Your task to perform on an android device: Search for sushi restaurants on Maps Image 0: 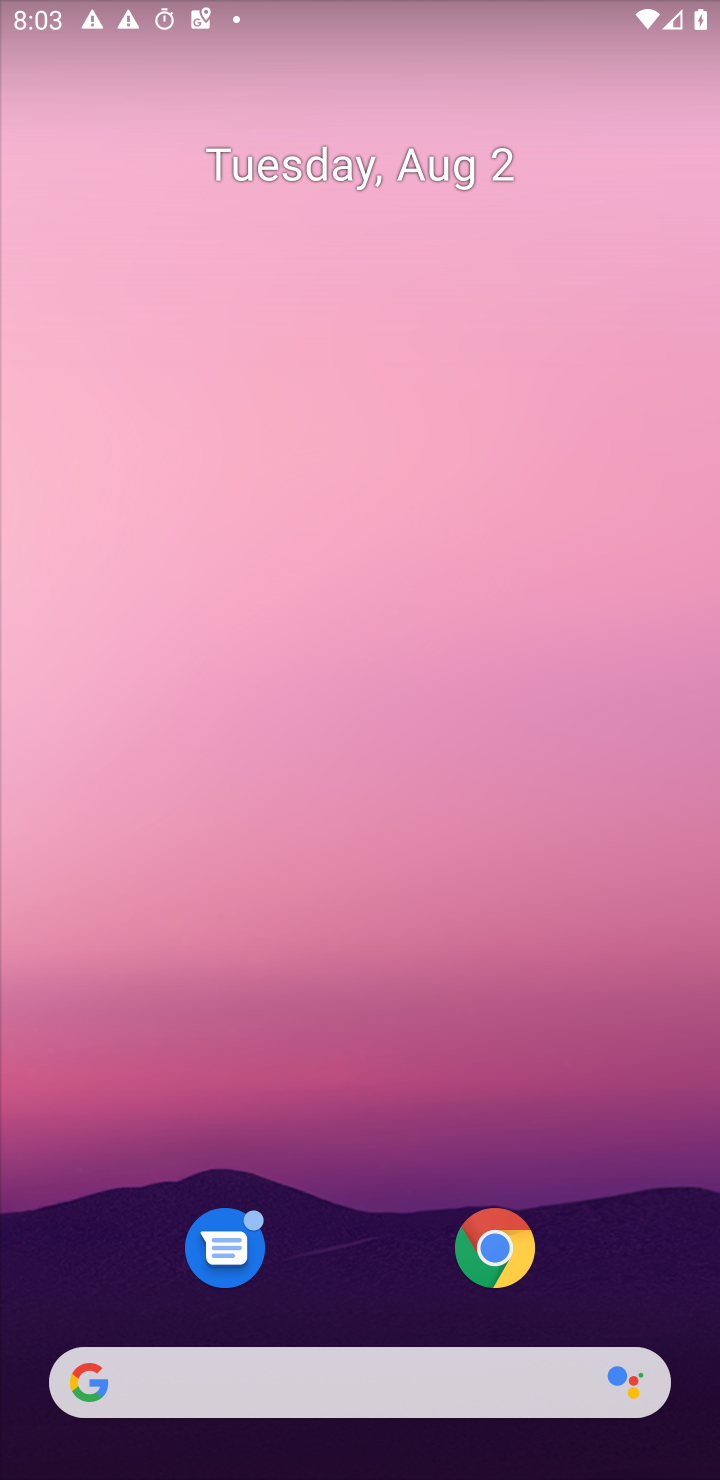
Step 0: drag from (317, 1103) to (273, 3)
Your task to perform on an android device: Search for sushi restaurants on Maps Image 1: 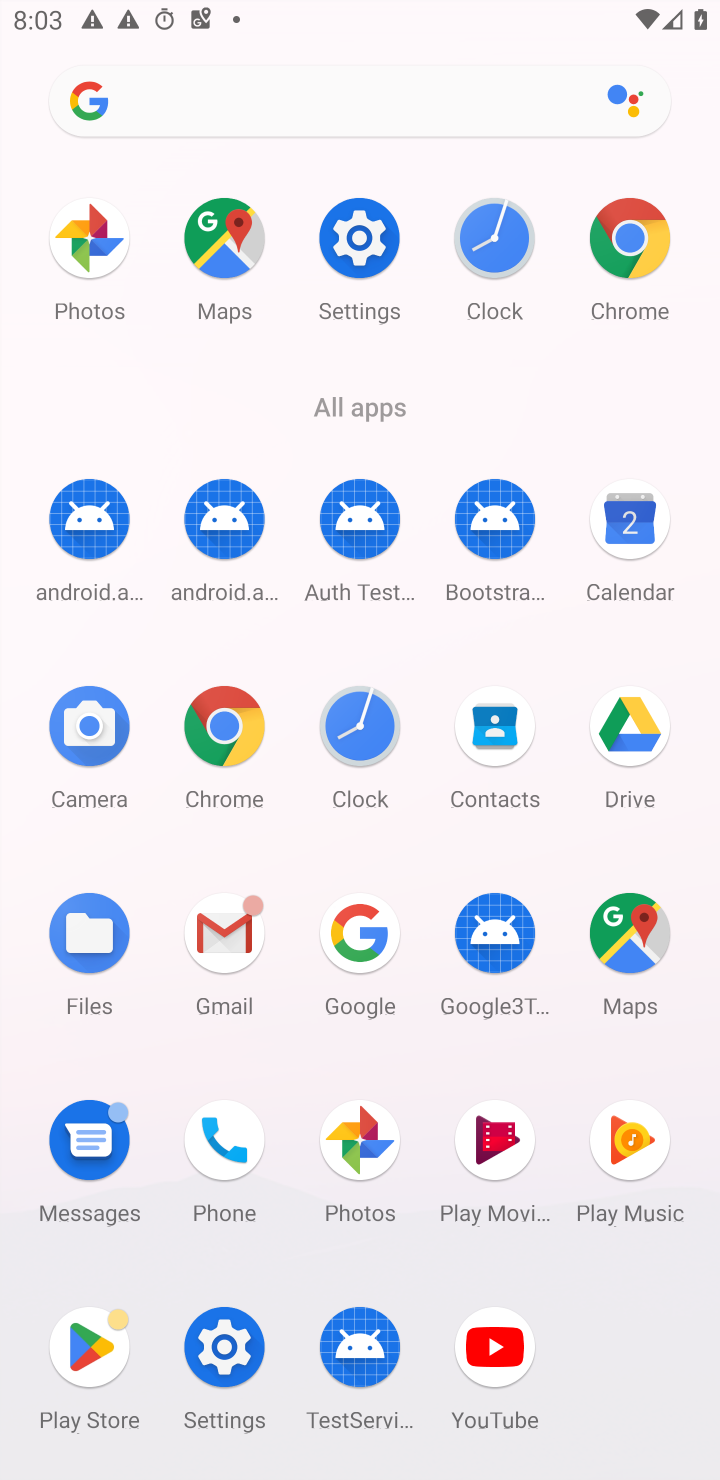
Step 1: click (620, 918)
Your task to perform on an android device: Search for sushi restaurants on Maps Image 2: 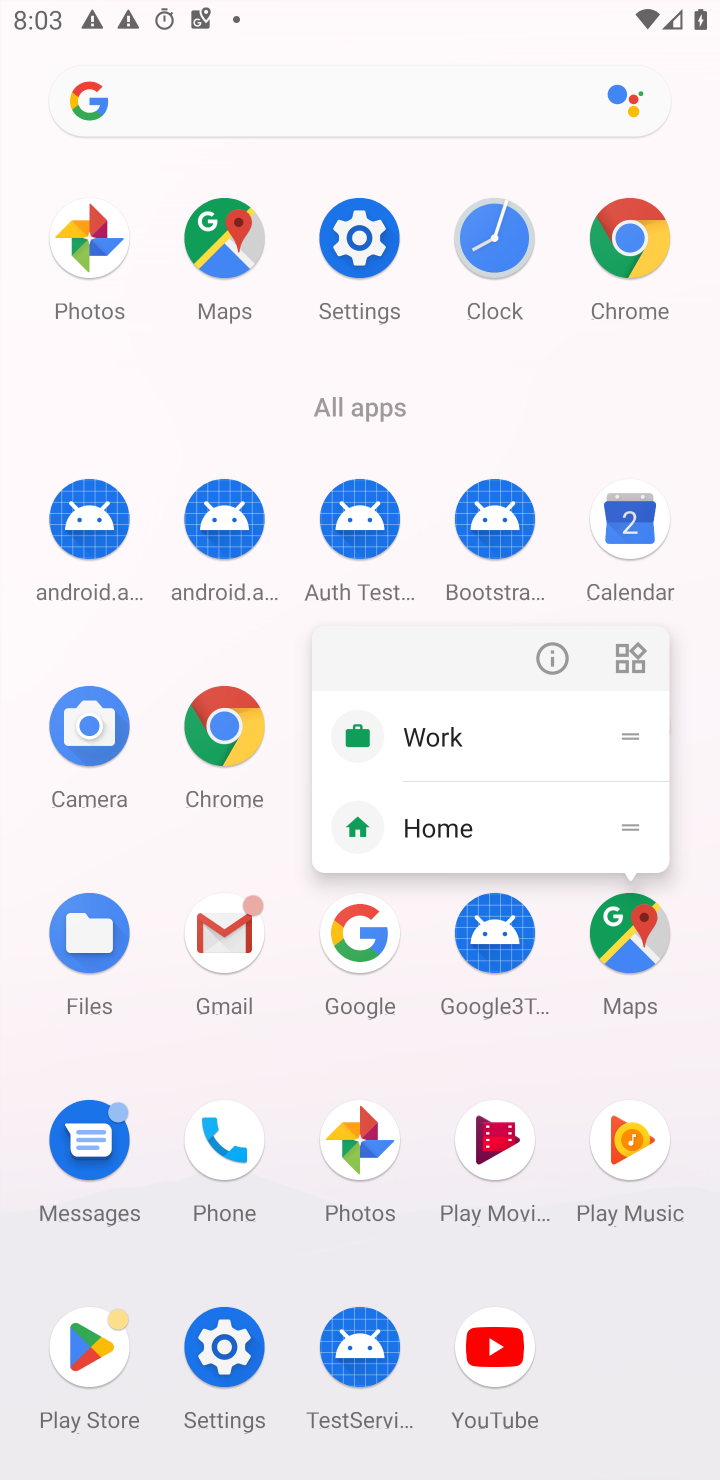
Step 2: click (519, 645)
Your task to perform on an android device: Search for sushi restaurants on Maps Image 3: 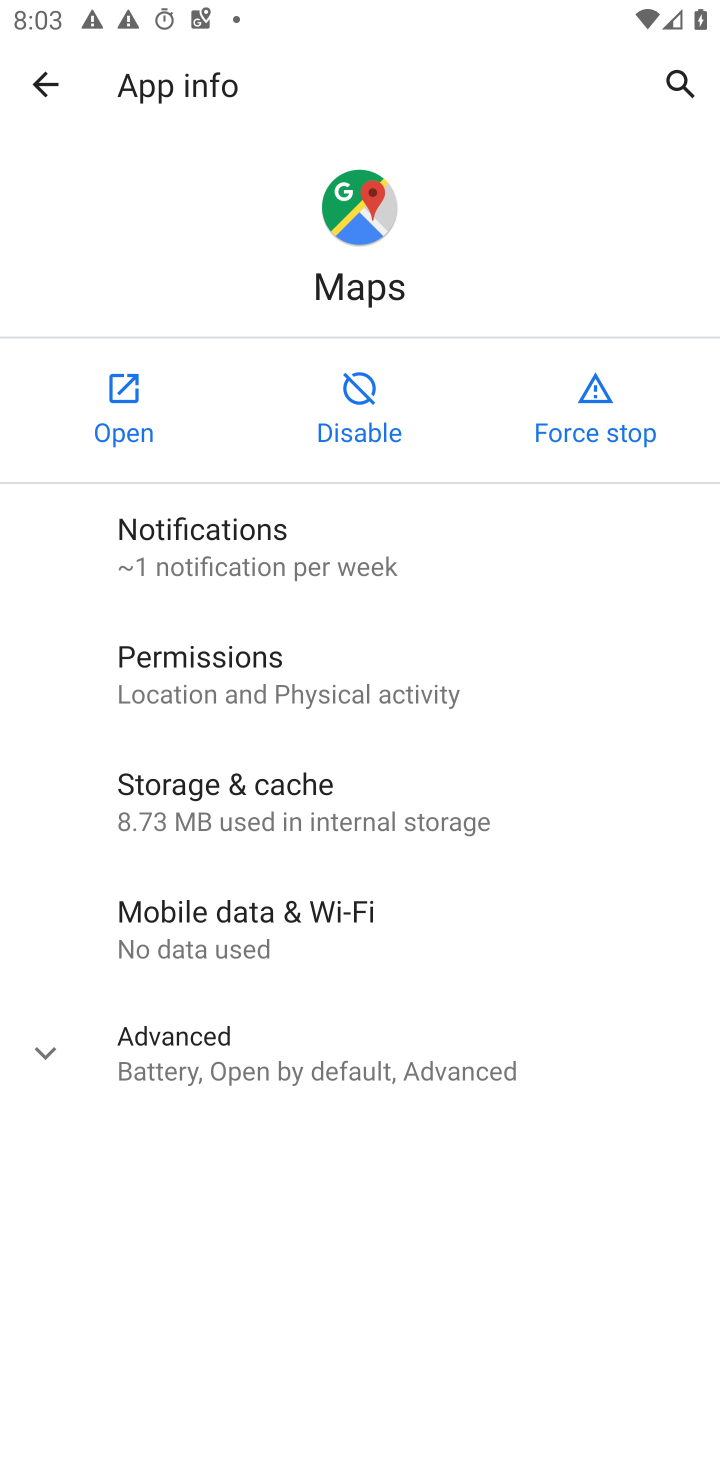
Step 3: click (189, 409)
Your task to perform on an android device: Search for sushi restaurants on Maps Image 4: 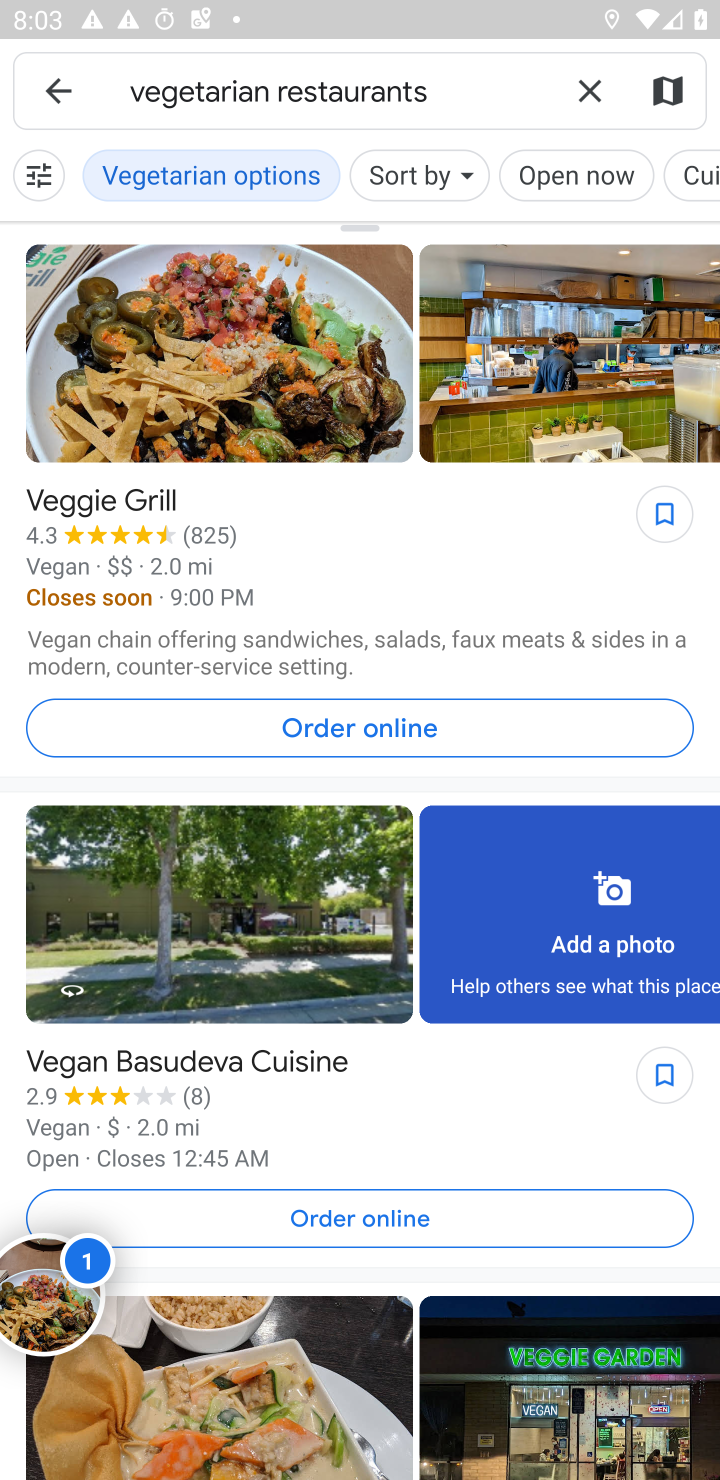
Step 4: click (579, 112)
Your task to perform on an android device: Search for sushi restaurants on Maps Image 5: 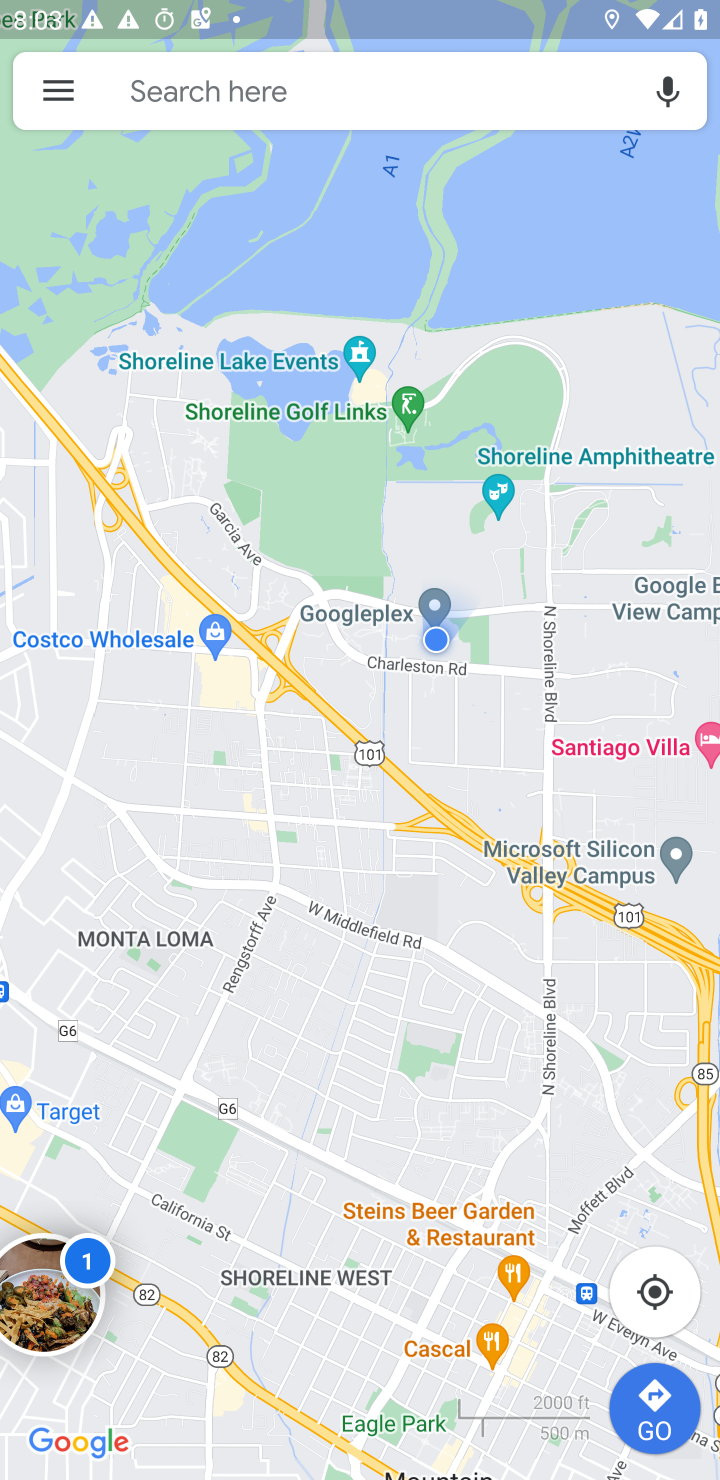
Step 5: click (173, 85)
Your task to perform on an android device: Search for sushi restaurants on Maps Image 6: 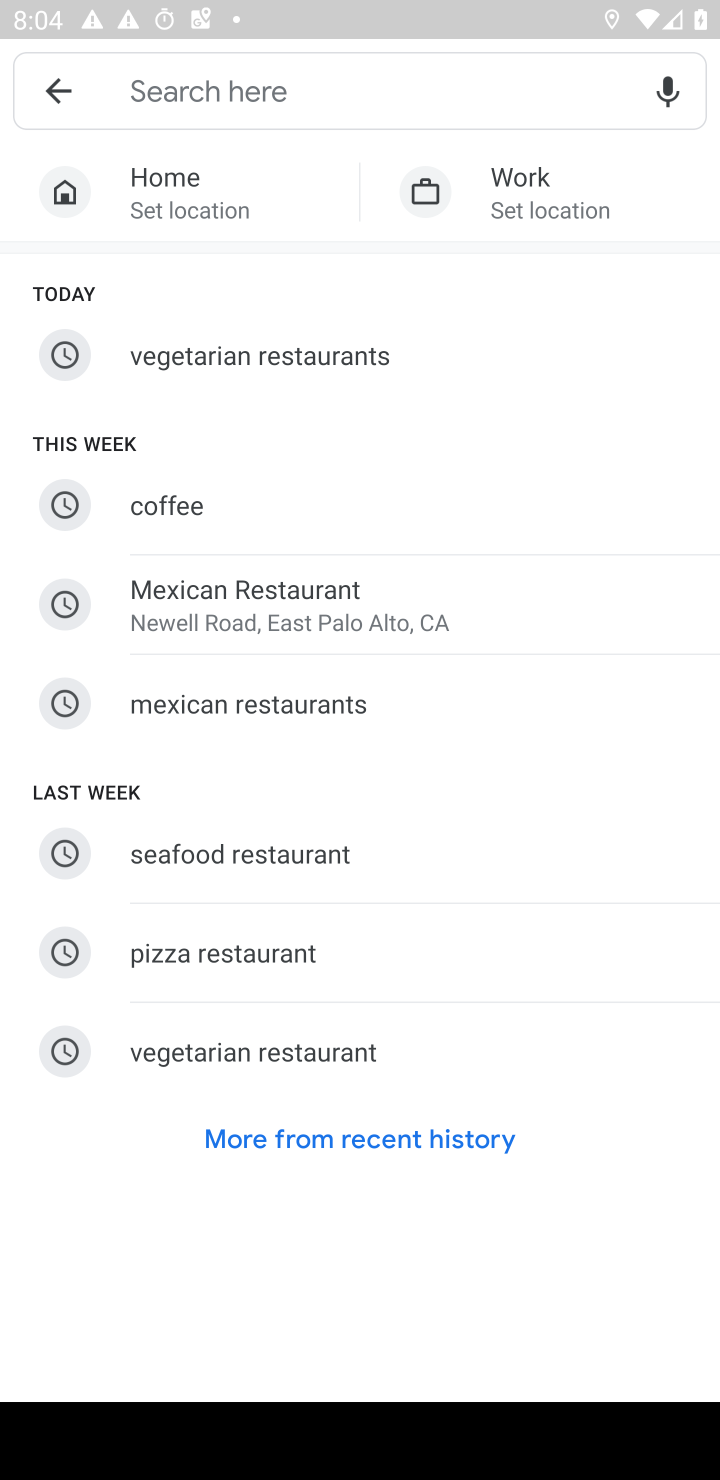
Step 6: type "sushi restaurants"
Your task to perform on an android device: Search for sushi restaurants on Maps Image 7: 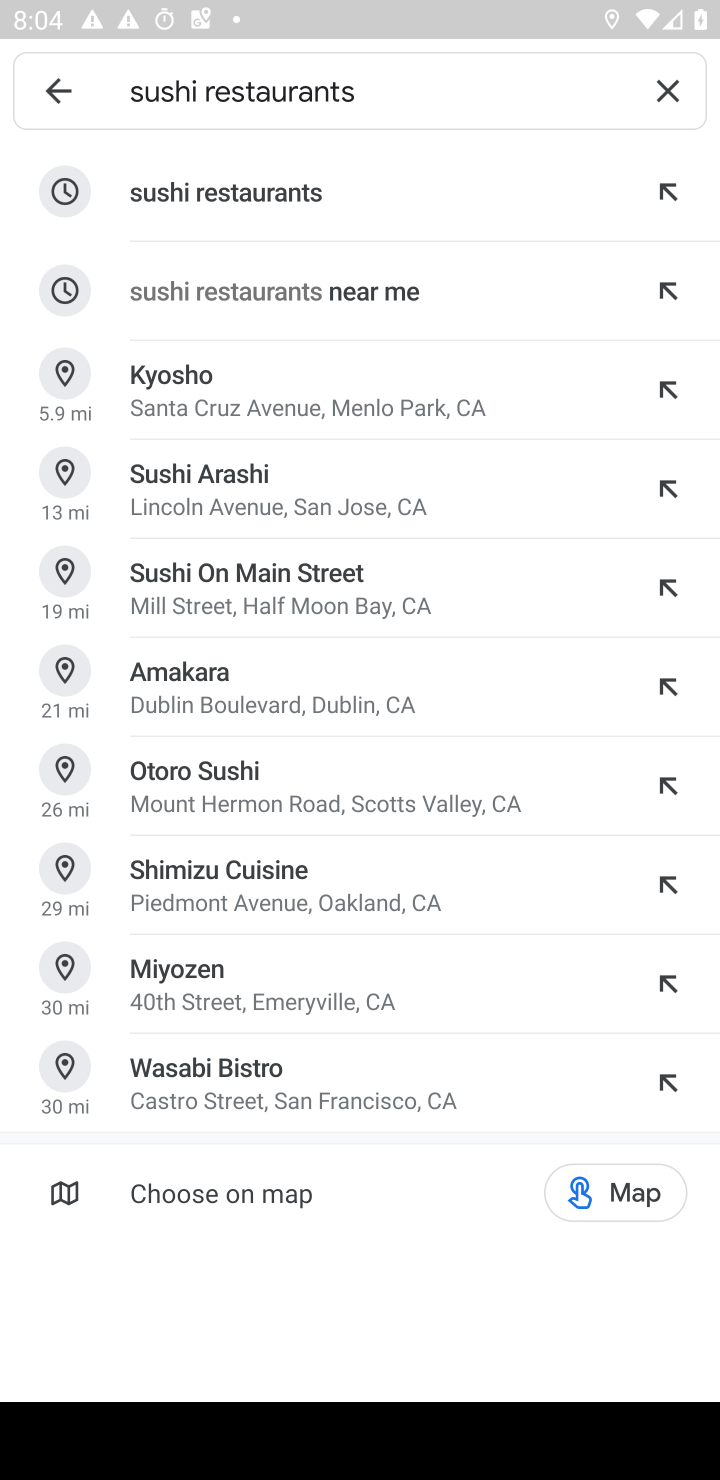
Step 7: click (256, 183)
Your task to perform on an android device: Search for sushi restaurants on Maps Image 8: 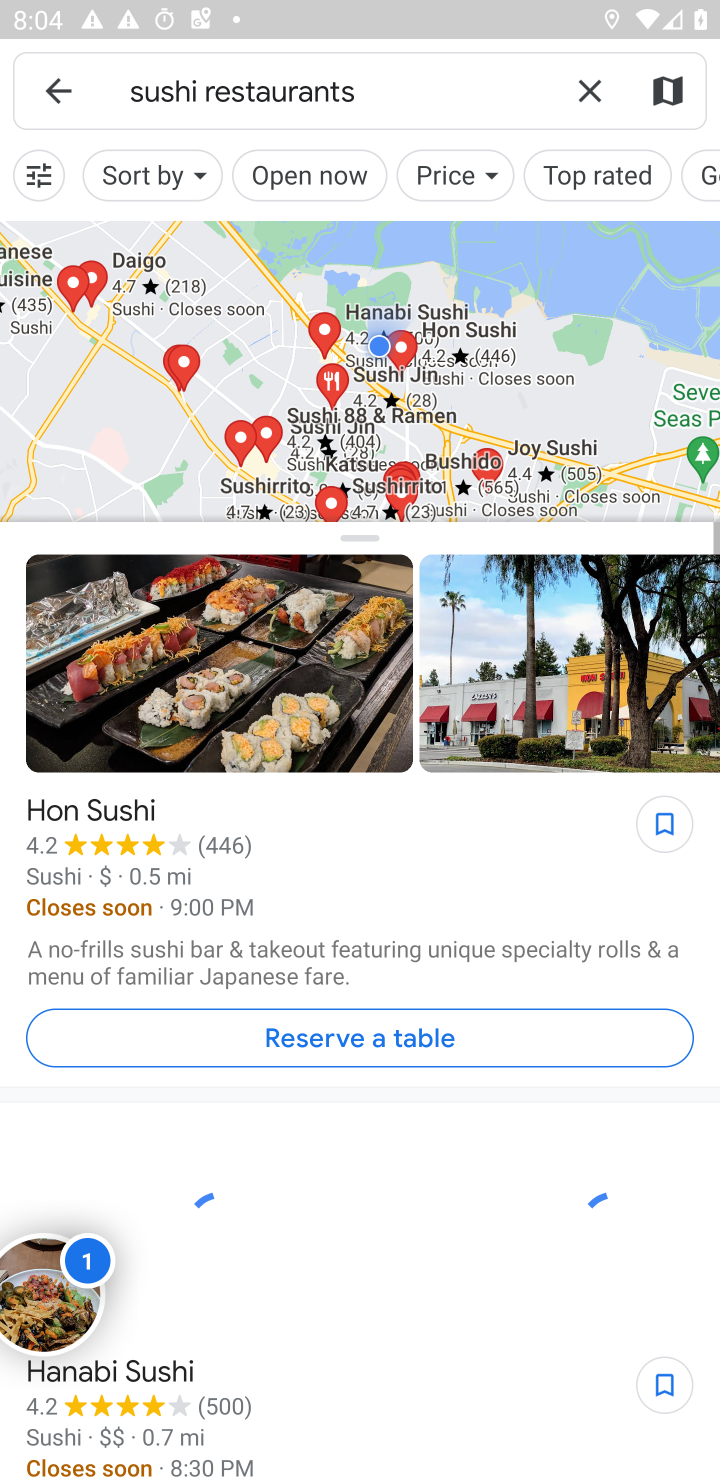
Step 8: drag from (428, 1010) to (533, 250)
Your task to perform on an android device: Search for sushi restaurants on Maps Image 9: 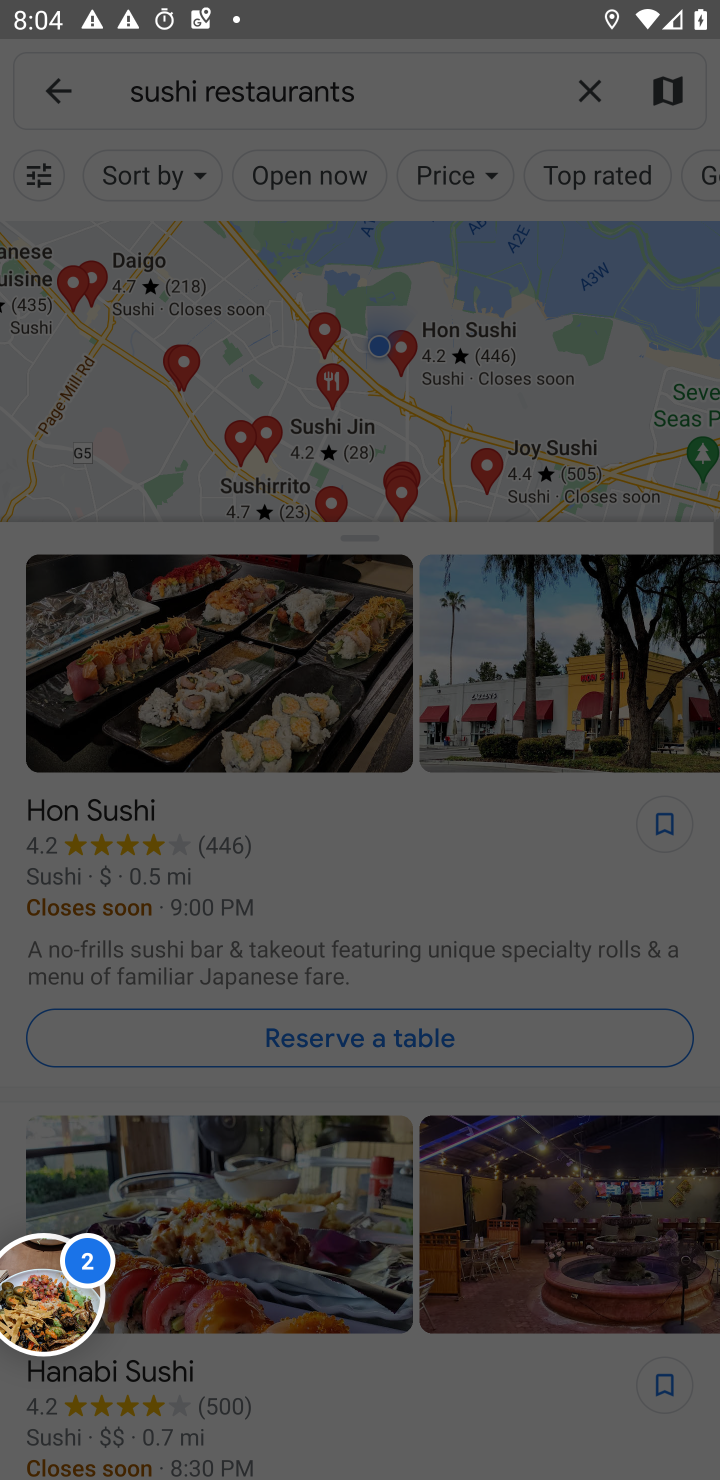
Step 9: drag from (452, 742) to (524, 400)
Your task to perform on an android device: Search for sushi restaurants on Maps Image 10: 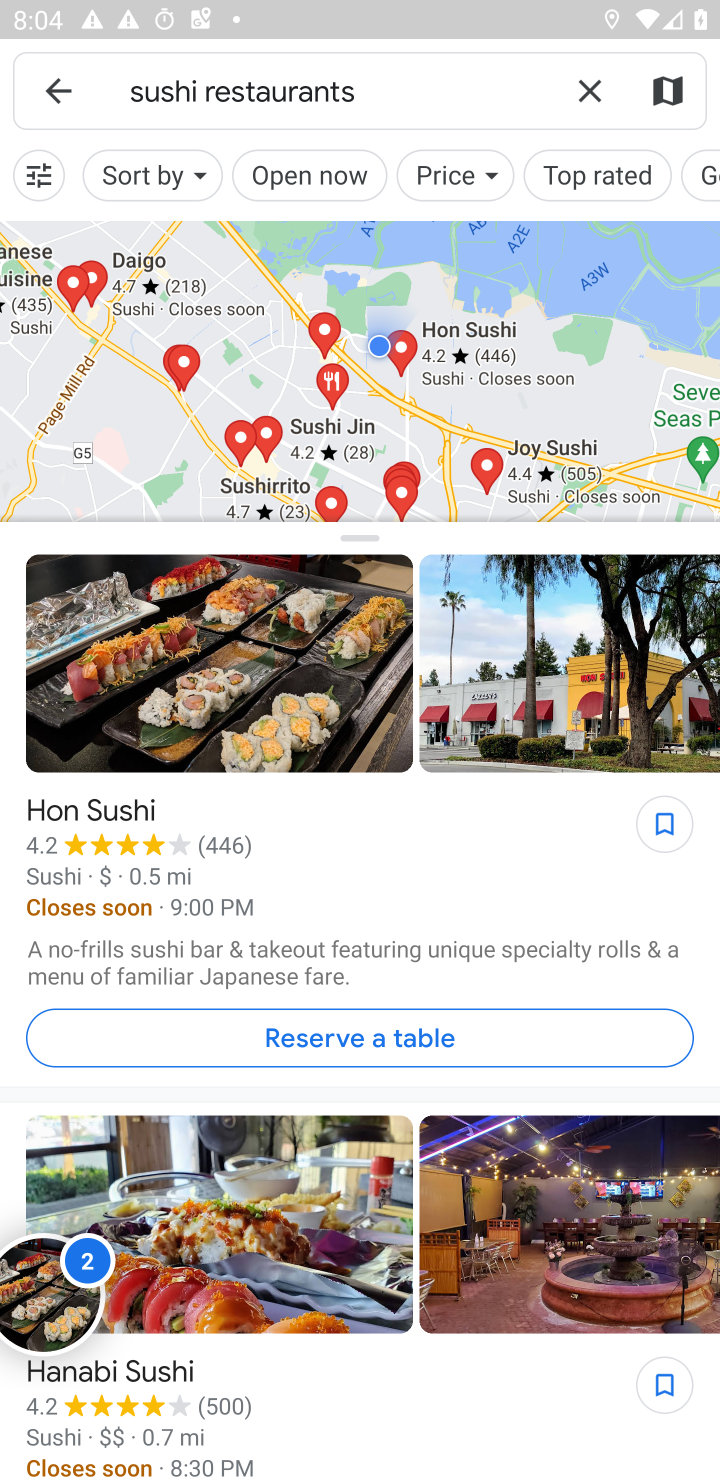
Step 10: drag from (395, 1348) to (533, 996)
Your task to perform on an android device: Search for sushi restaurants on Maps Image 11: 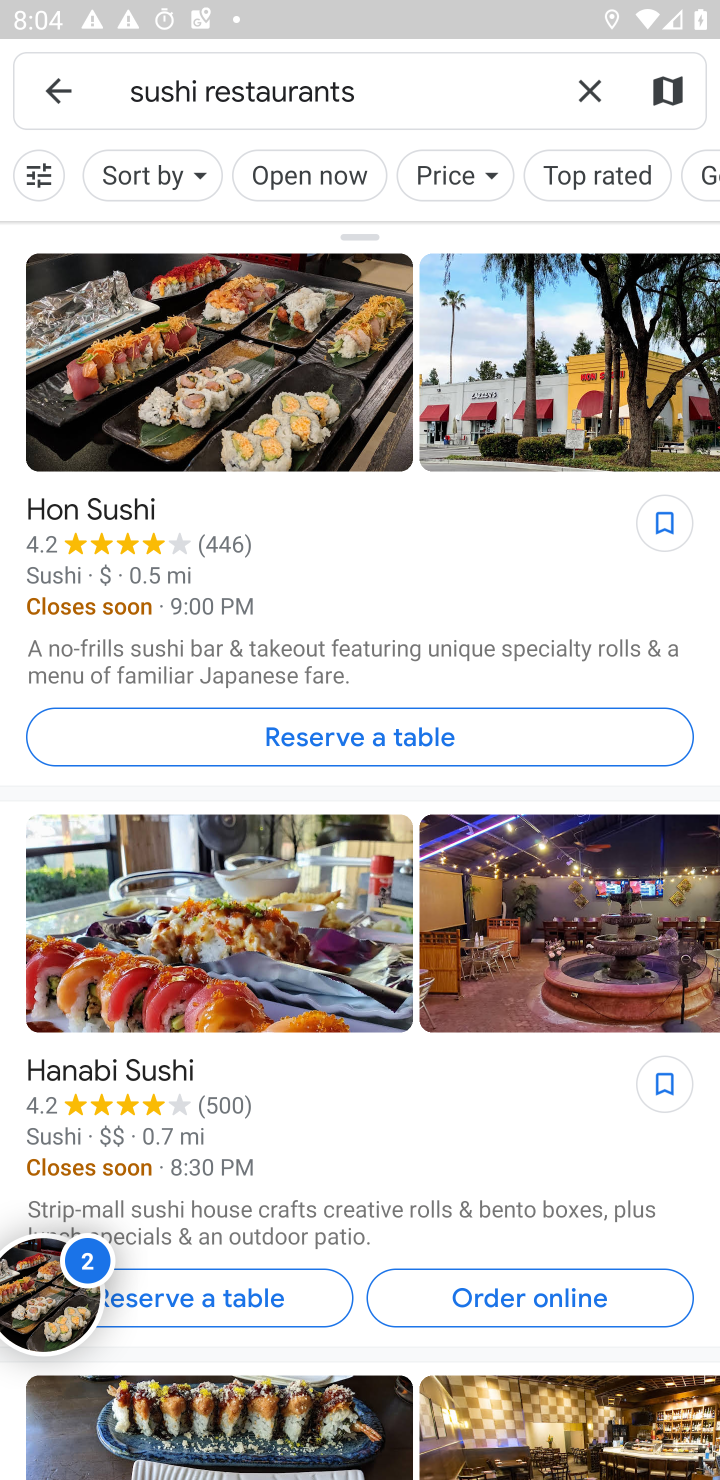
Step 11: drag from (350, 1035) to (387, 586)
Your task to perform on an android device: Search for sushi restaurants on Maps Image 12: 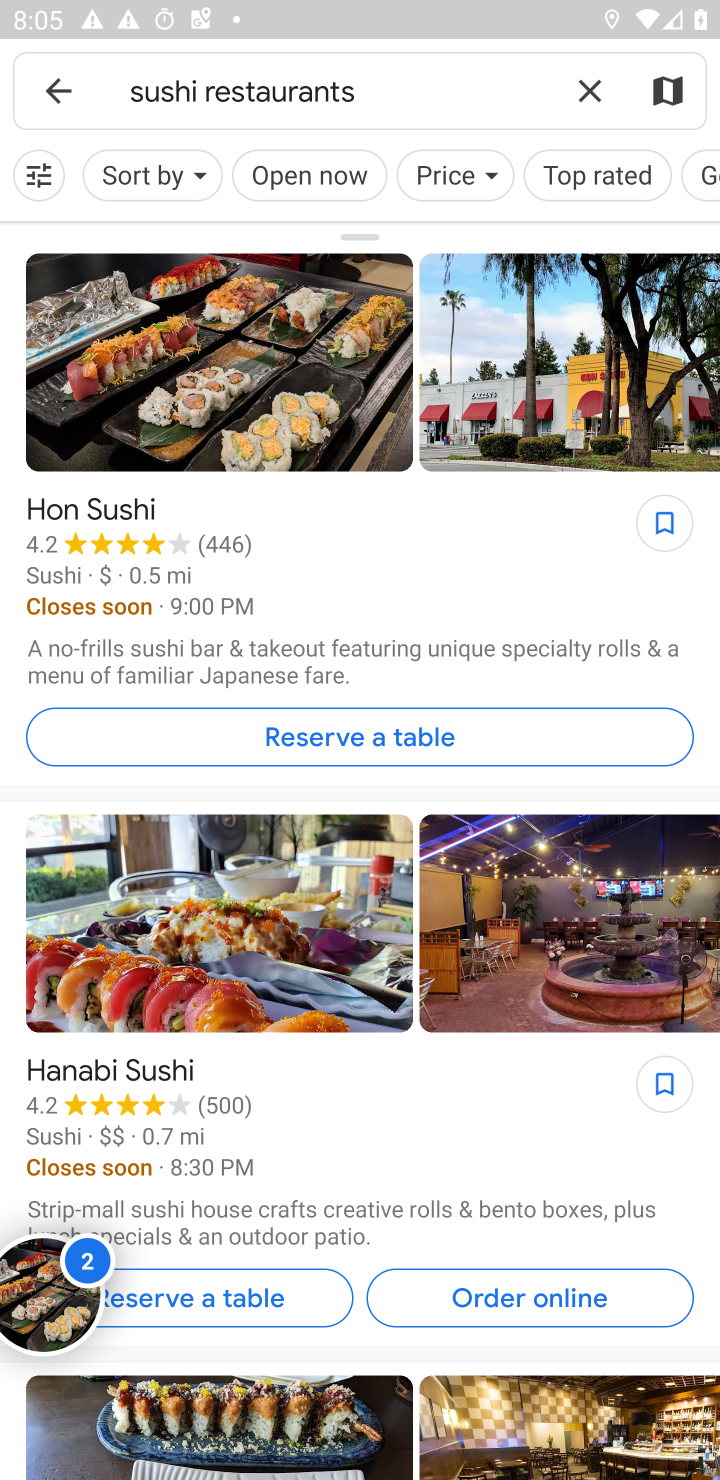
Step 12: drag from (392, 615) to (449, 1467)
Your task to perform on an android device: Search for sushi restaurants on Maps Image 13: 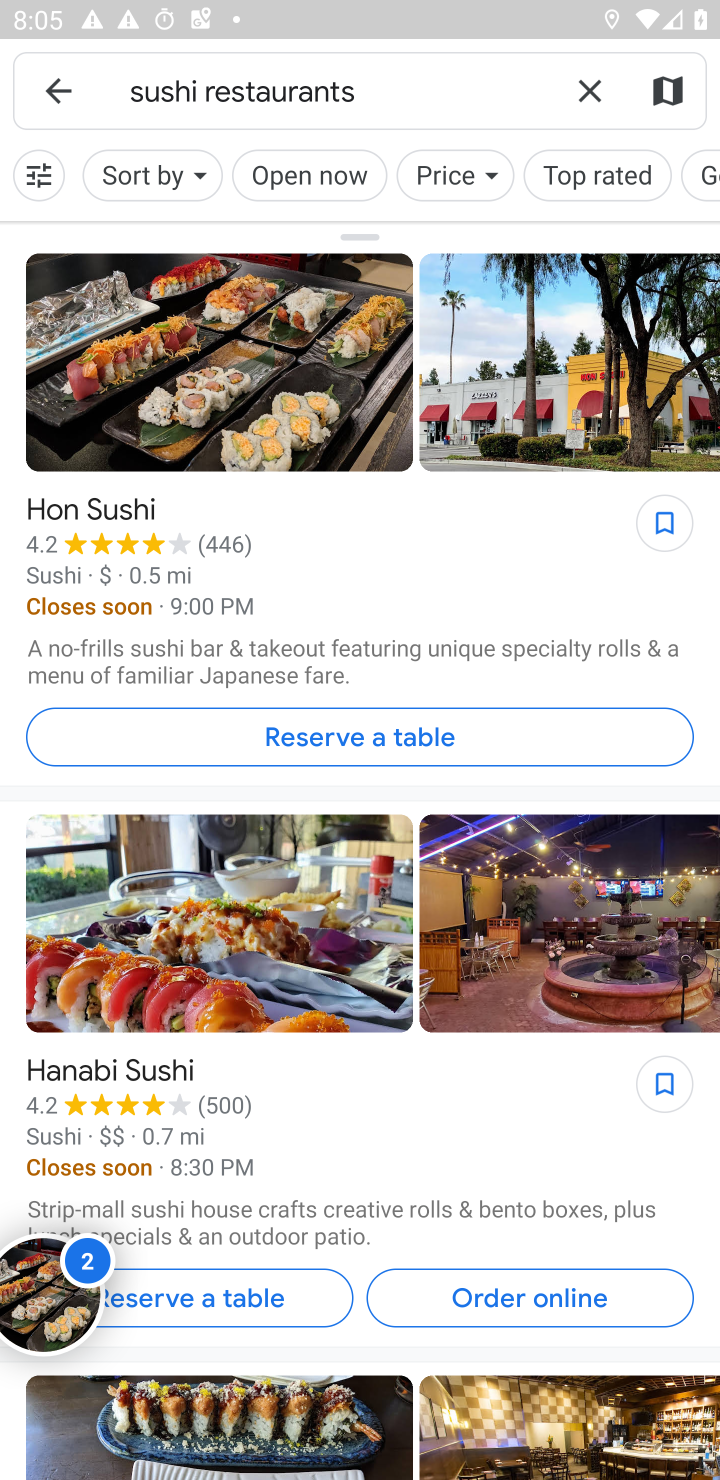
Step 13: click (583, 83)
Your task to perform on an android device: Search for sushi restaurants on Maps Image 14: 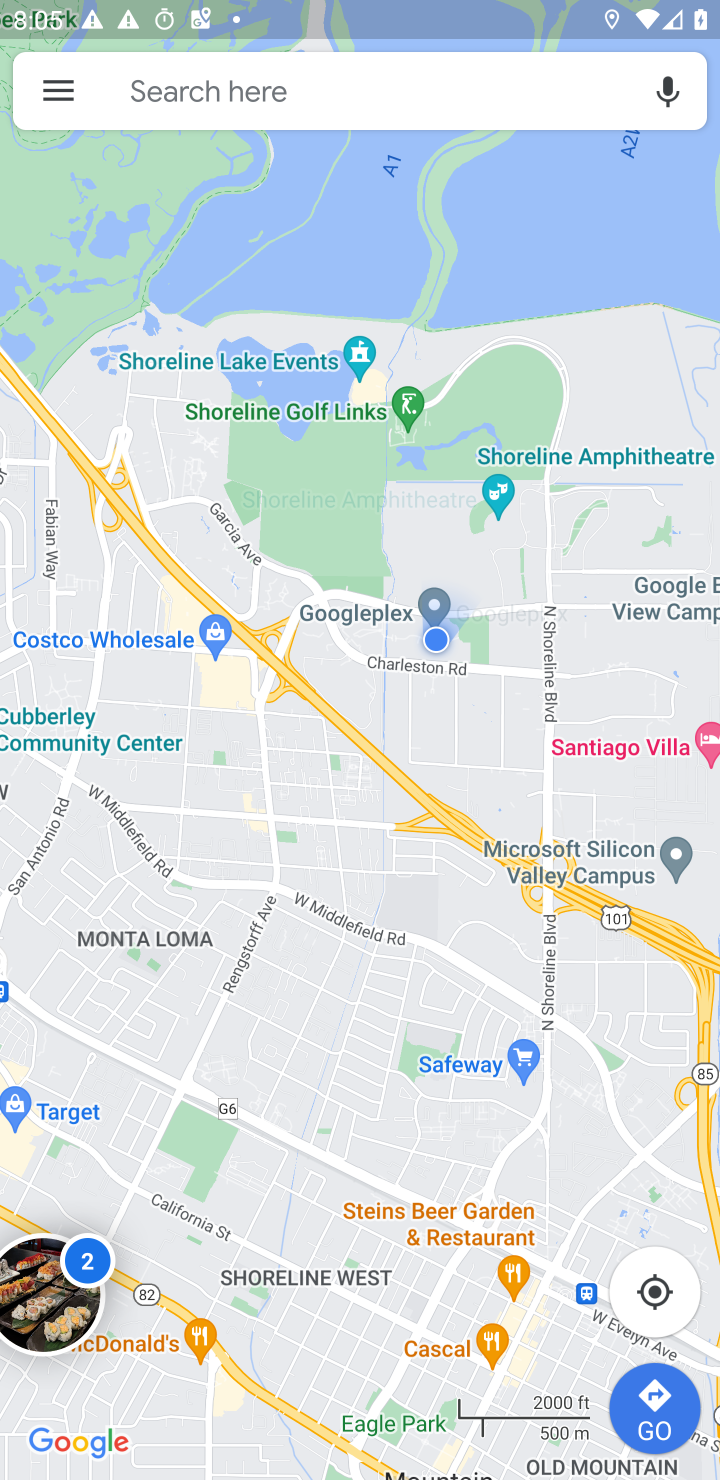
Step 14: task complete